Your task to perform on an android device: Open Google Chrome and click the shortcut for Amazon.com Image 0: 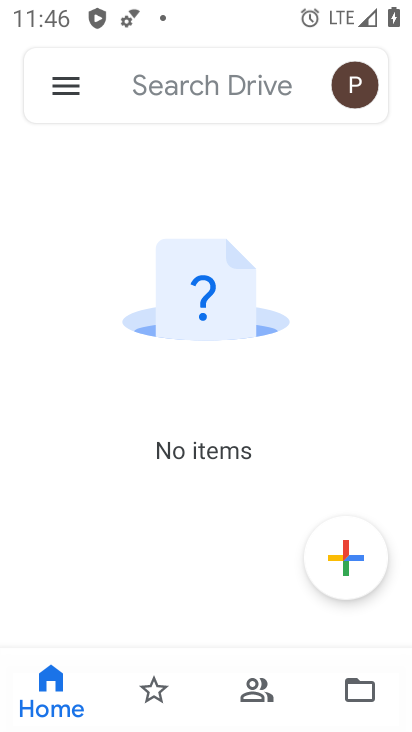
Step 0: press back button
Your task to perform on an android device: Open Google Chrome and click the shortcut for Amazon.com Image 1: 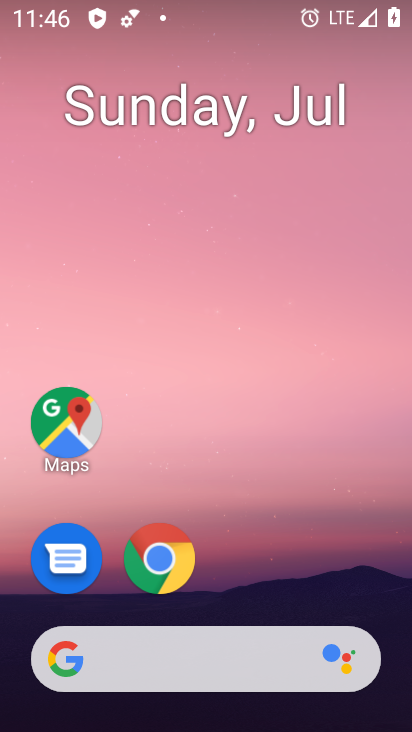
Step 1: click (177, 544)
Your task to perform on an android device: Open Google Chrome and click the shortcut for Amazon.com Image 2: 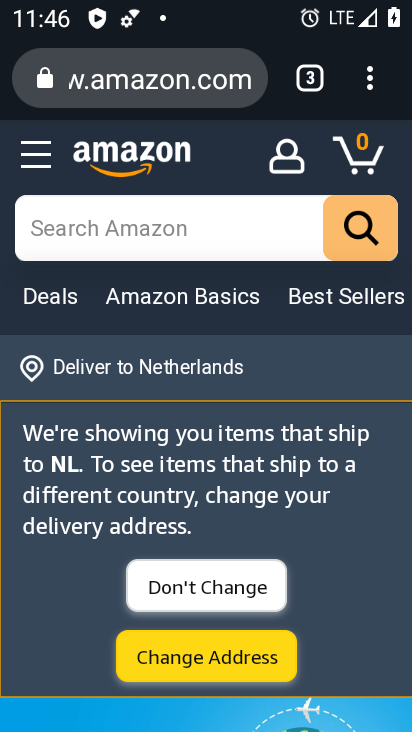
Step 2: task complete